Your task to perform on an android device: Is it going to rain today? Image 0: 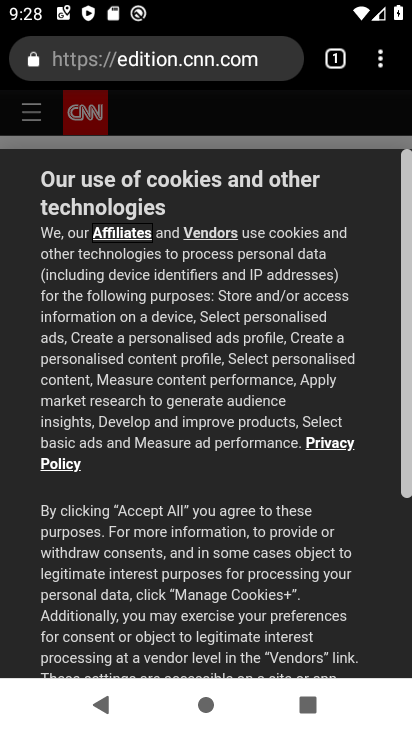
Step 0: press home button
Your task to perform on an android device: Is it going to rain today? Image 1: 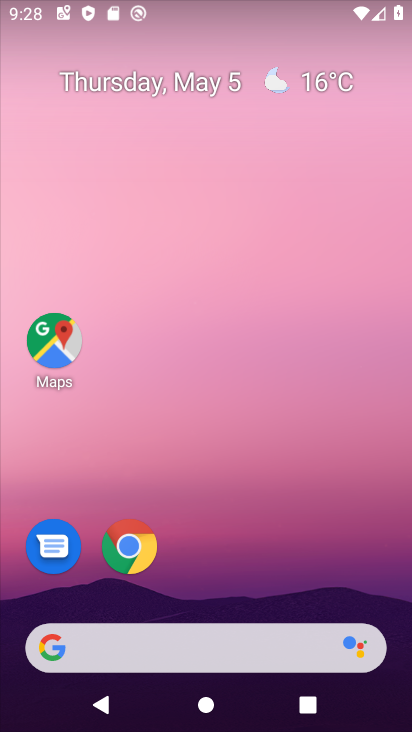
Step 1: drag from (246, 597) to (231, 131)
Your task to perform on an android device: Is it going to rain today? Image 2: 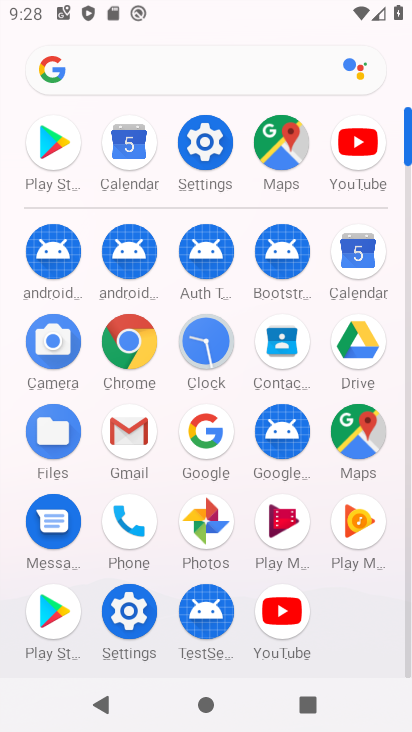
Step 2: click (127, 84)
Your task to perform on an android device: Is it going to rain today? Image 3: 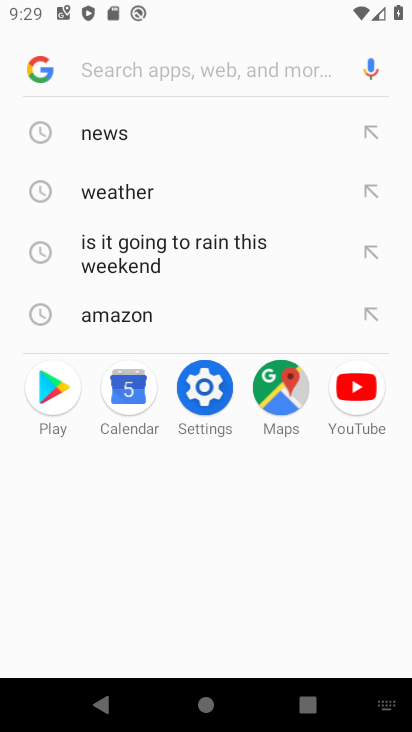
Step 3: type "is it going to rain today"
Your task to perform on an android device: Is it going to rain today? Image 4: 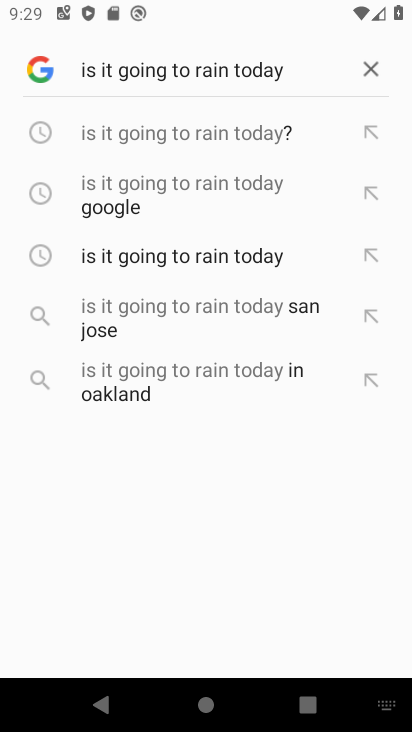
Step 4: click (160, 143)
Your task to perform on an android device: Is it going to rain today? Image 5: 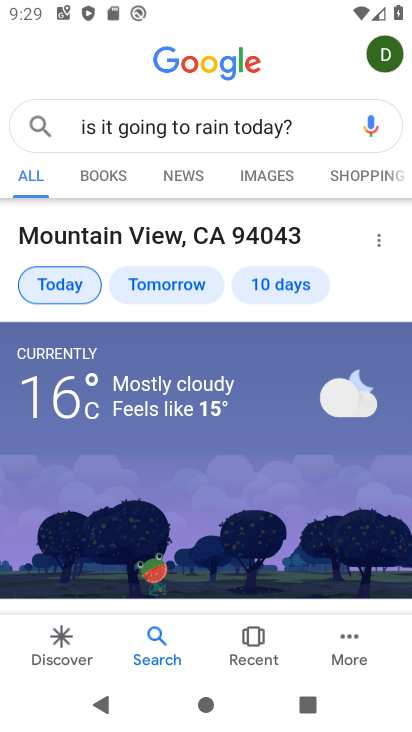
Step 5: task complete